Your task to perform on an android device: Show me popular videos on Youtube Image 0: 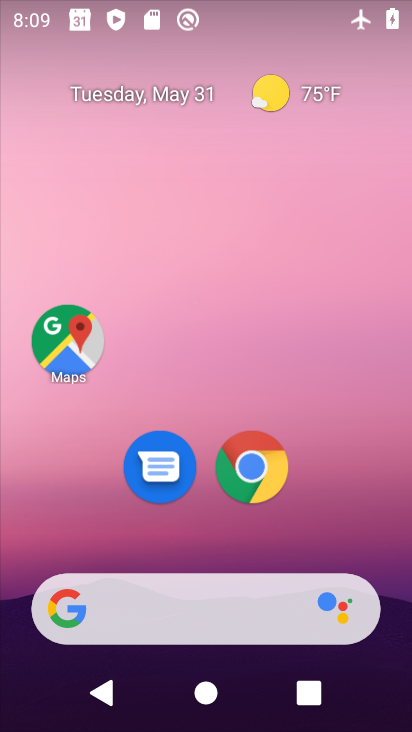
Step 0: drag from (218, 289) to (272, 5)
Your task to perform on an android device: Show me popular videos on Youtube Image 1: 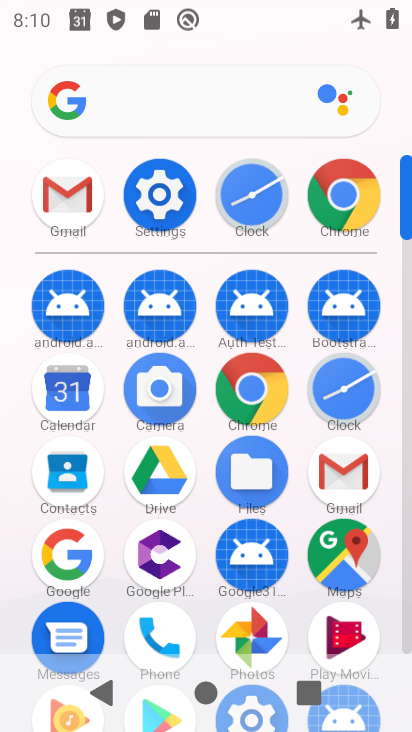
Step 1: drag from (192, 619) to (229, 204)
Your task to perform on an android device: Show me popular videos on Youtube Image 2: 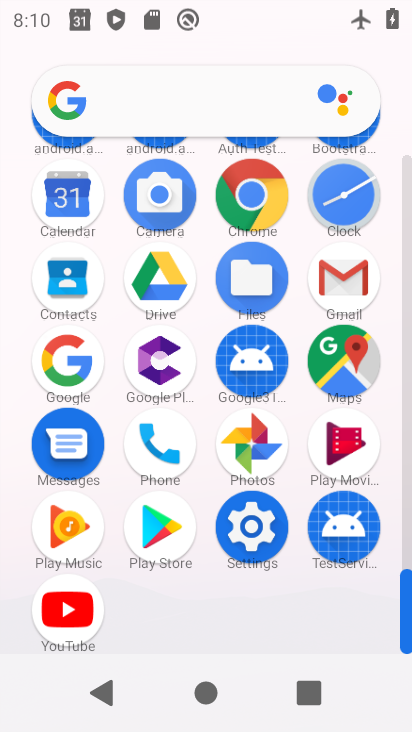
Step 2: click (57, 608)
Your task to perform on an android device: Show me popular videos on Youtube Image 3: 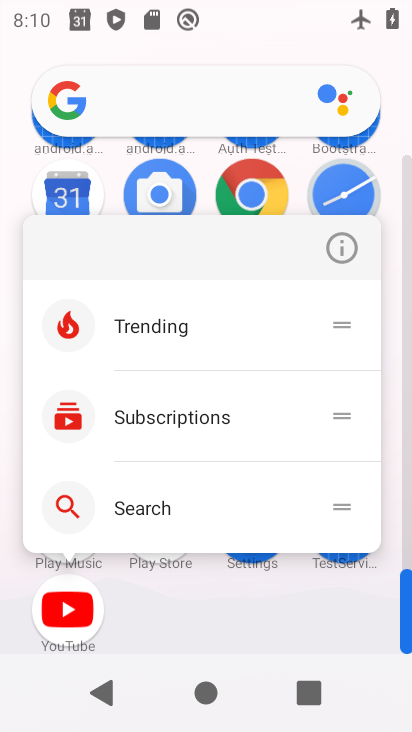
Step 3: click (342, 252)
Your task to perform on an android device: Show me popular videos on Youtube Image 4: 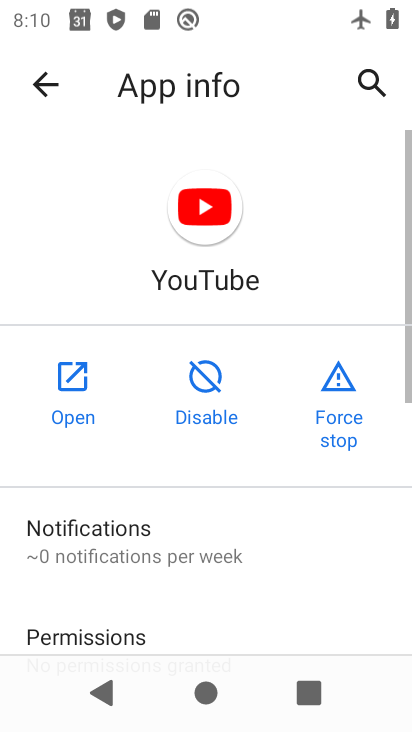
Step 4: click (58, 381)
Your task to perform on an android device: Show me popular videos on Youtube Image 5: 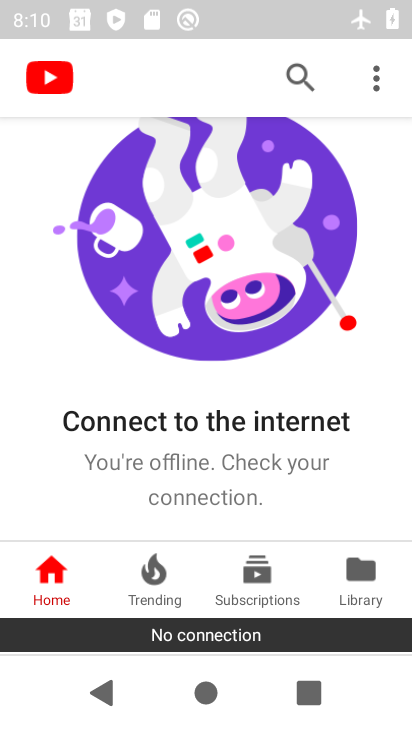
Step 5: click (84, 579)
Your task to perform on an android device: Show me popular videos on Youtube Image 6: 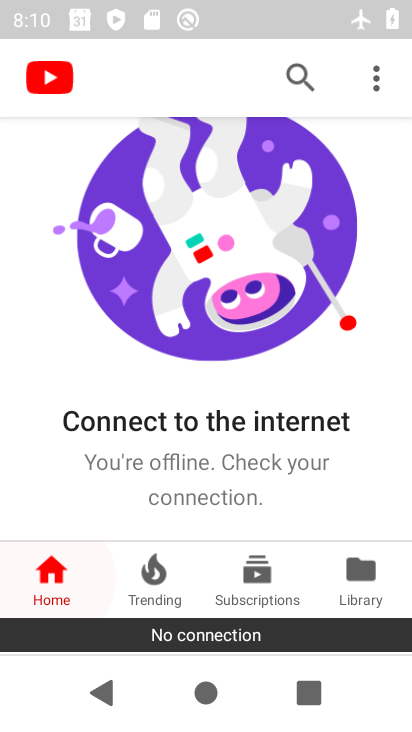
Step 6: task complete